Your task to perform on an android device: change timer sound Image 0: 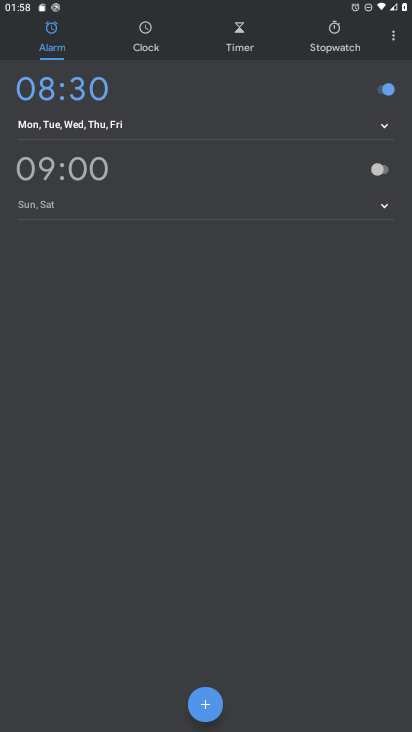
Step 0: drag from (40, 648) to (157, 321)
Your task to perform on an android device: change timer sound Image 1: 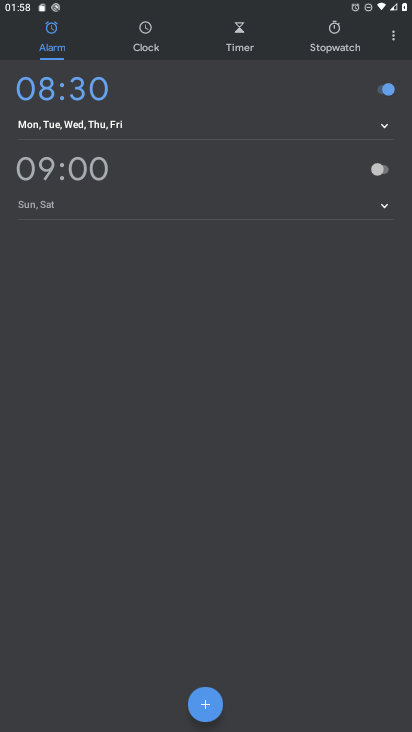
Step 1: press home button
Your task to perform on an android device: change timer sound Image 2: 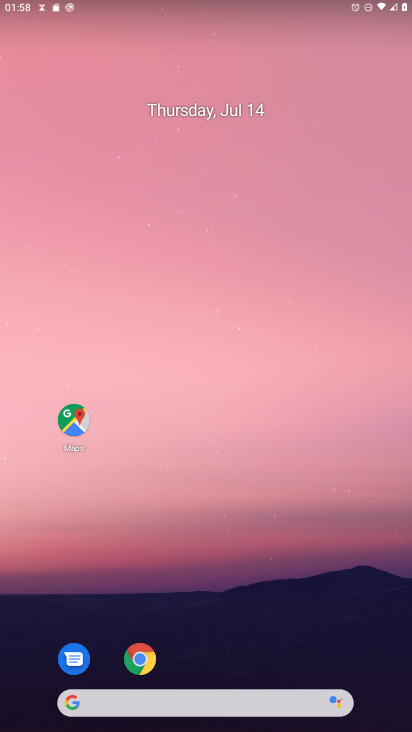
Step 2: drag from (60, 588) to (177, 194)
Your task to perform on an android device: change timer sound Image 3: 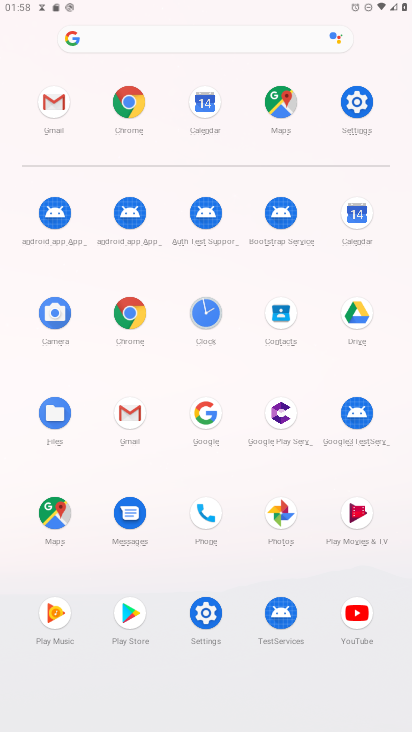
Step 3: click (207, 330)
Your task to perform on an android device: change timer sound Image 4: 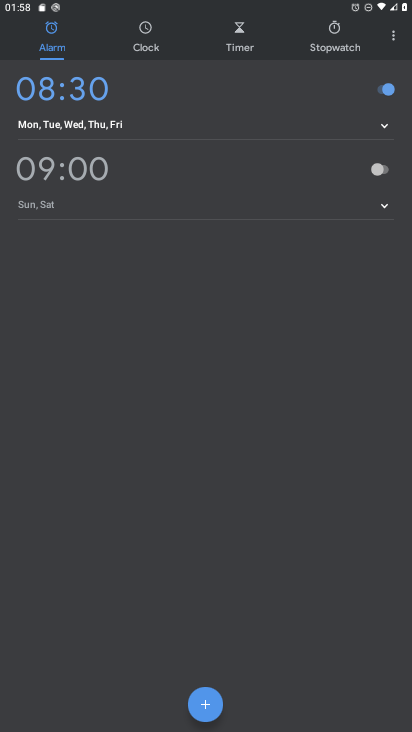
Step 4: click (257, 41)
Your task to perform on an android device: change timer sound Image 5: 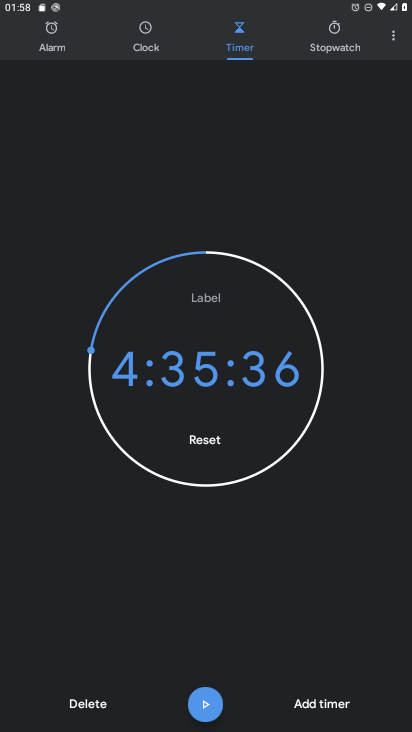
Step 5: click (393, 38)
Your task to perform on an android device: change timer sound Image 6: 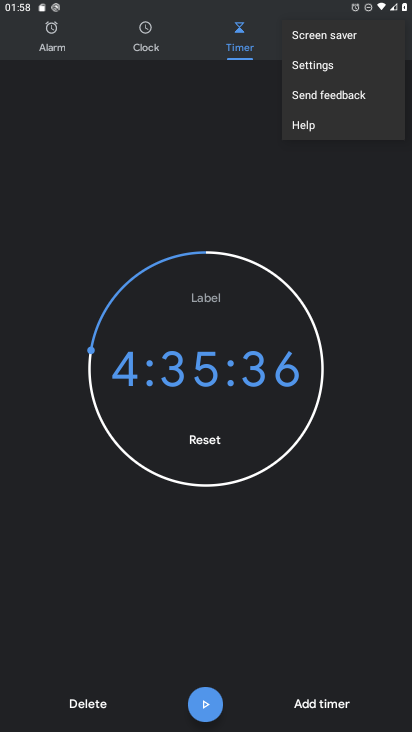
Step 6: click (322, 71)
Your task to perform on an android device: change timer sound Image 7: 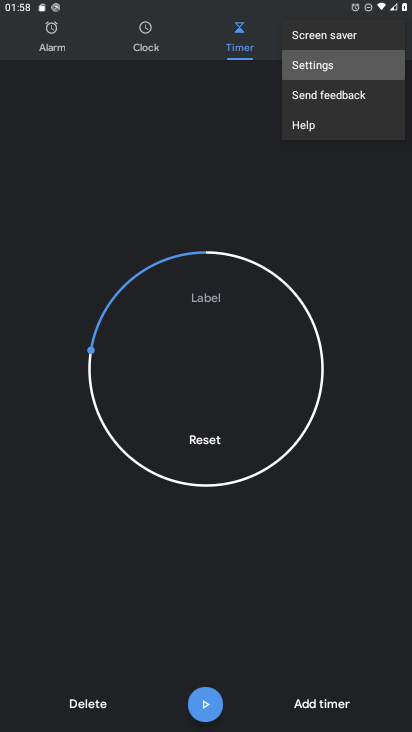
Step 7: click (323, 58)
Your task to perform on an android device: change timer sound Image 8: 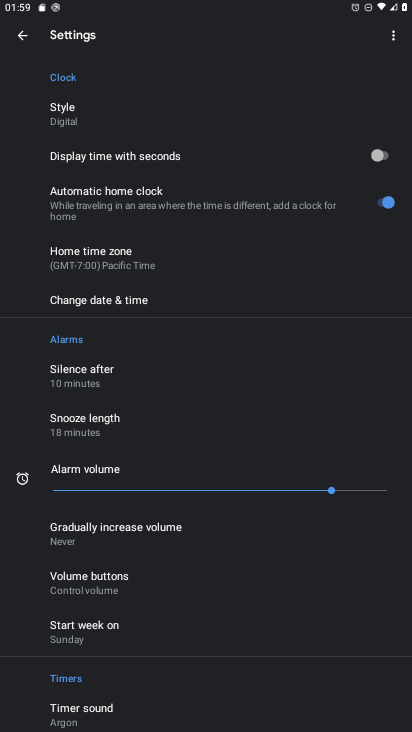
Step 8: click (75, 714)
Your task to perform on an android device: change timer sound Image 9: 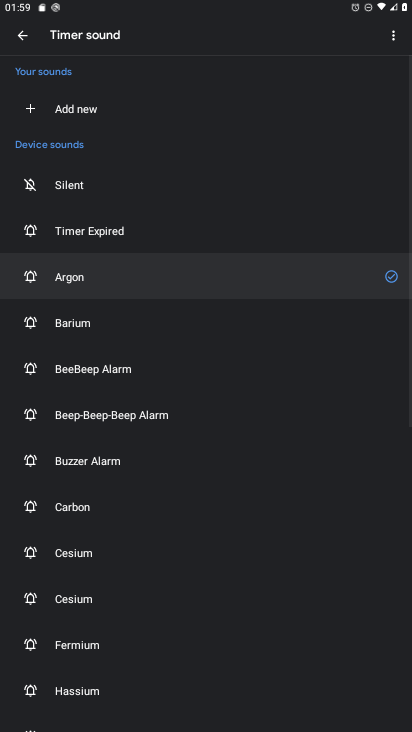
Step 9: click (125, 309)
Your task to perform on an android device: change timer sound Image 10: 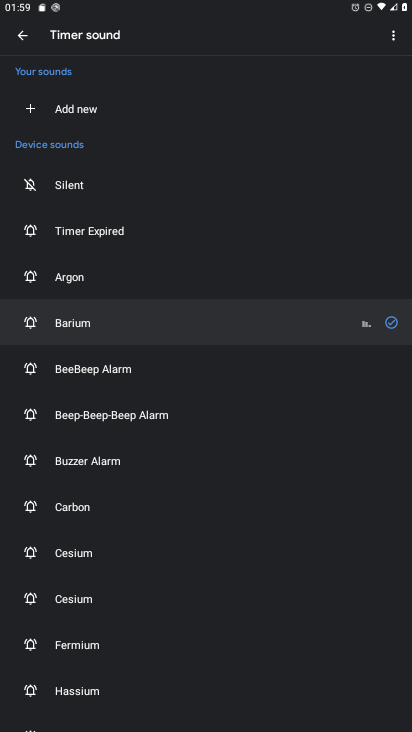
Step 10: task complete